Your task to perform on an android device: When is my next meeting? Image 0: 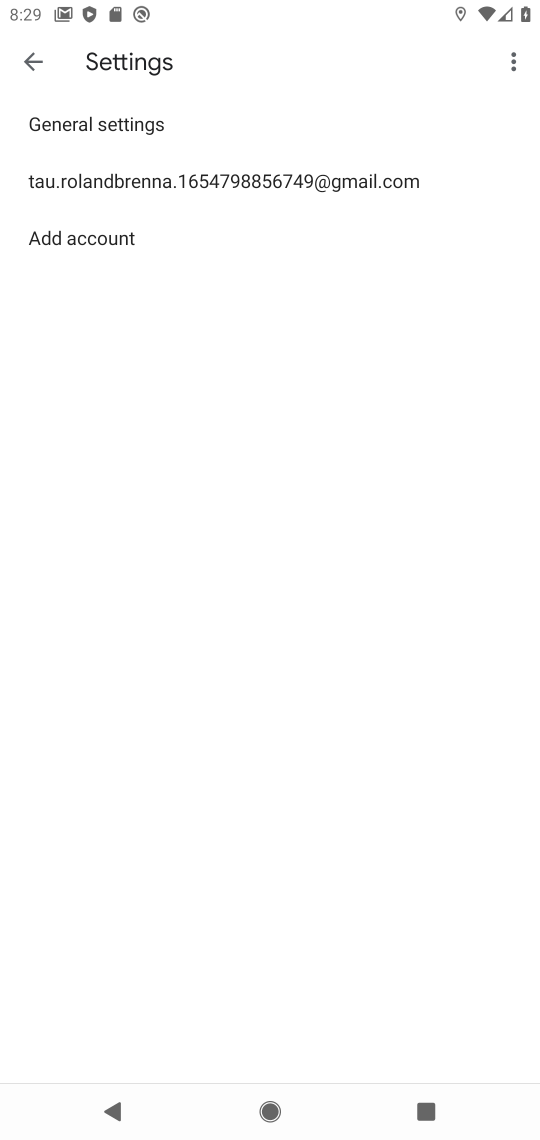
Step 0: press home button
Your task to perform on an android device: When is my next meeting? Image 1: 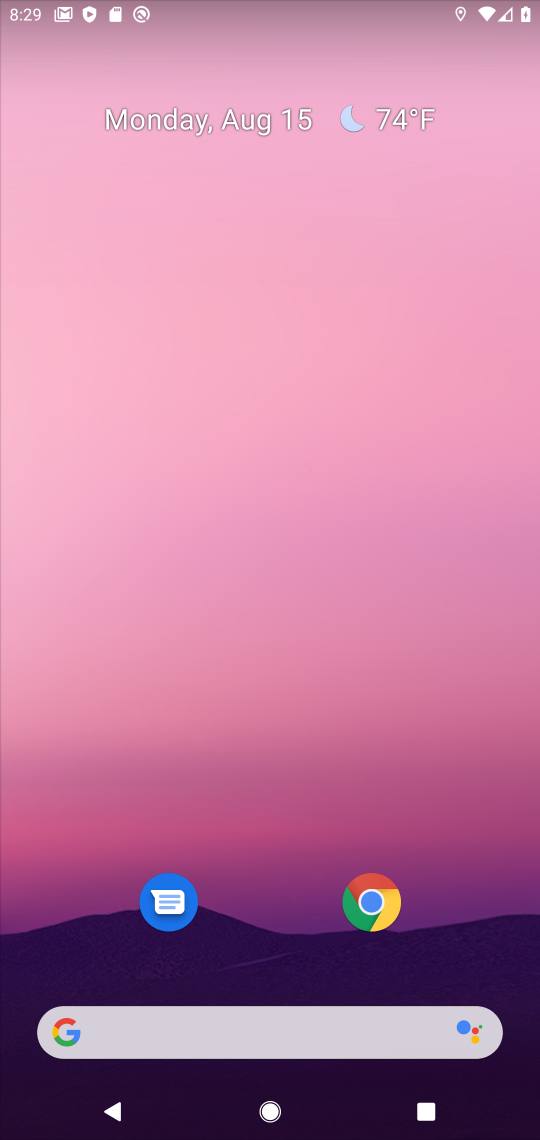
Step 1: drag from (465, 905) to (260, 37)
Your task to perform on an android device: When is my next meeting? Image 2: 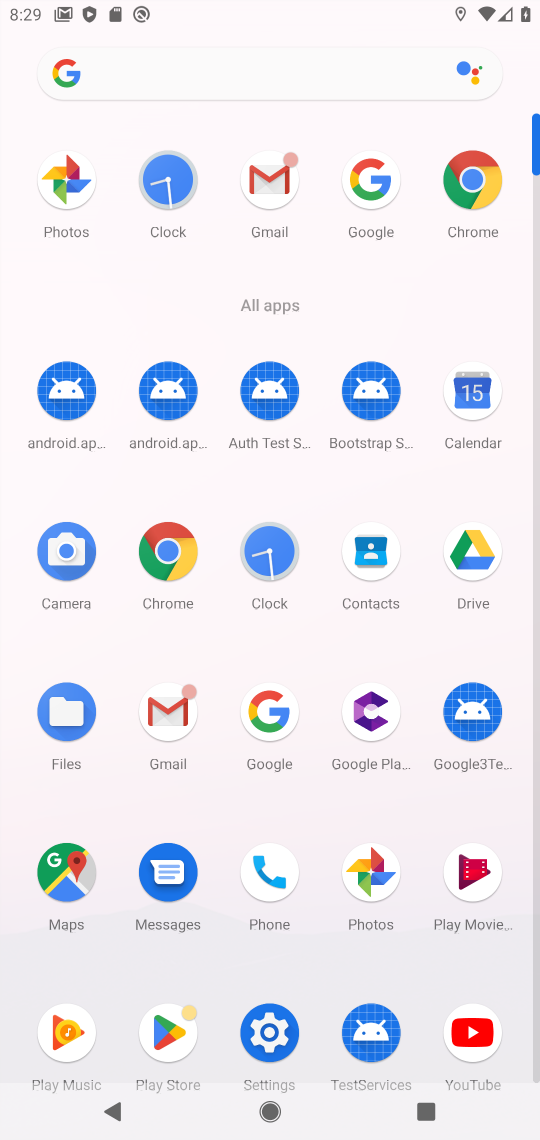
Step 2: click (462, 400)
Your task to perform on an android device: When is my next meeting? Image 3: 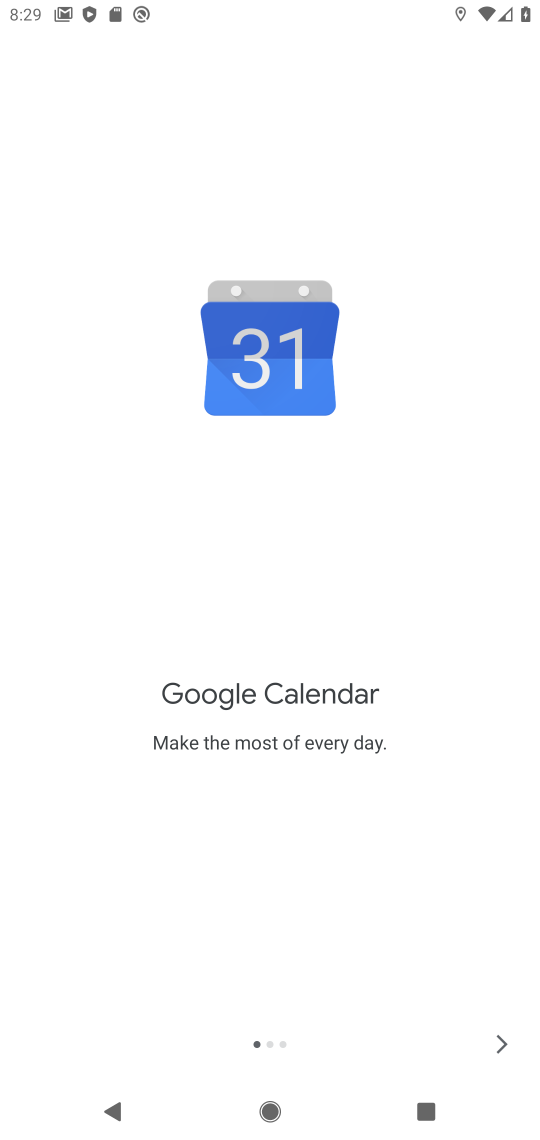
Step 3: task complete